Your task to perform on an android device: star an email in the gmail app Image 0: 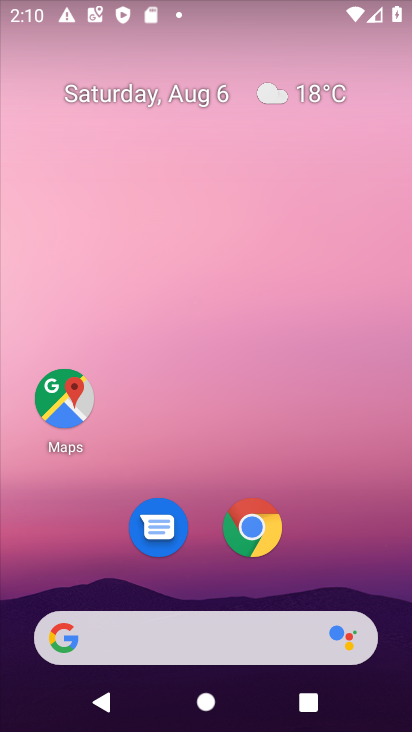
Step 0: drag from (211, 574) to (214, 187)
Your task to perform on an android device: star an email in the gmail app Image 1: 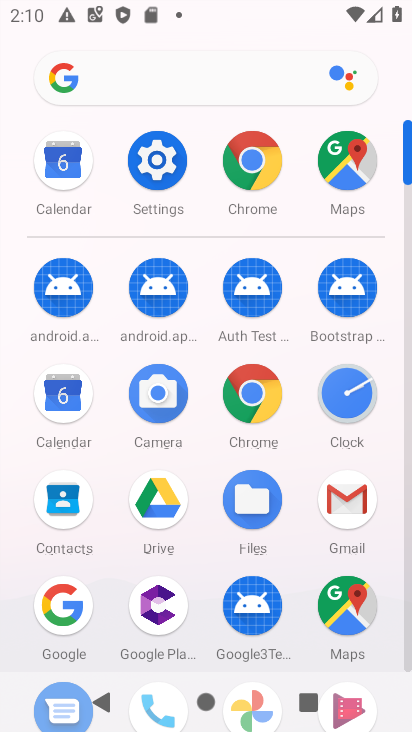
Step 1: click (352, 509)
Your task to perform on an android device: star an email in the gmail app Image 2: 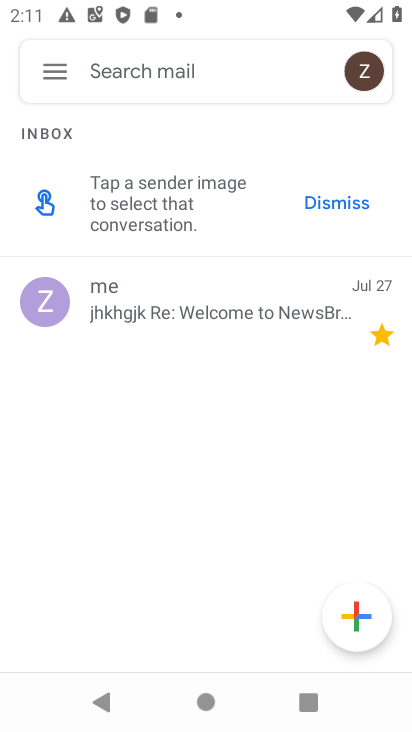
Step 2: click (358, 187)
Your task to perform on an android device: star an email in the gmail app Image 3: 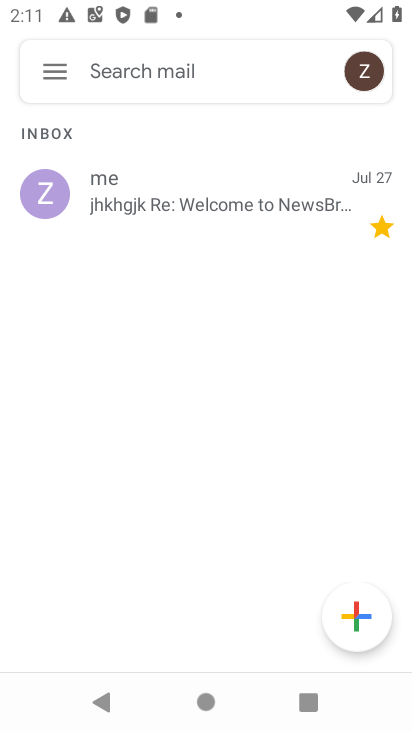
Step 3: click (56, 81)
Your task to perform on an android device: star an email in the gmail app Image 4: 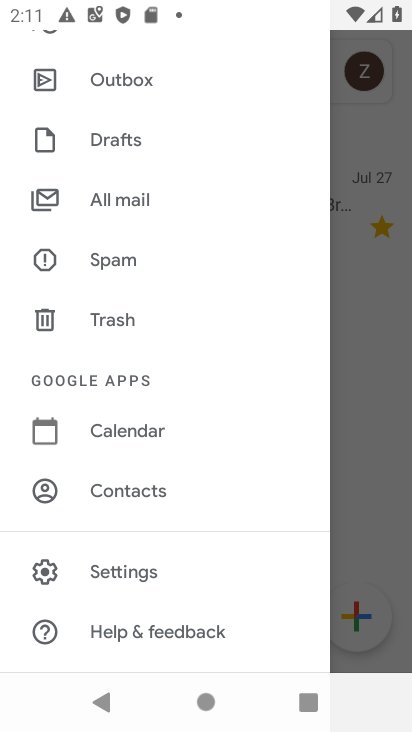
Step 4: click (143, 196)
Your task to perform on an android device: star an email in the gmail app Image 5: 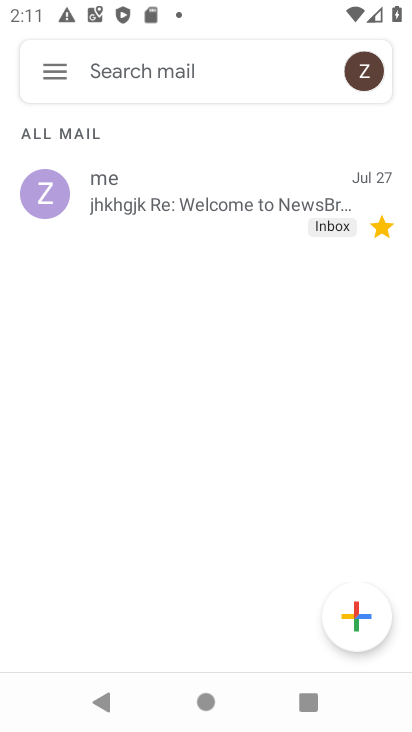
Step 5: task complete